Your task to perform on an android device: Show me productivity apps on the Play Store Image 0: 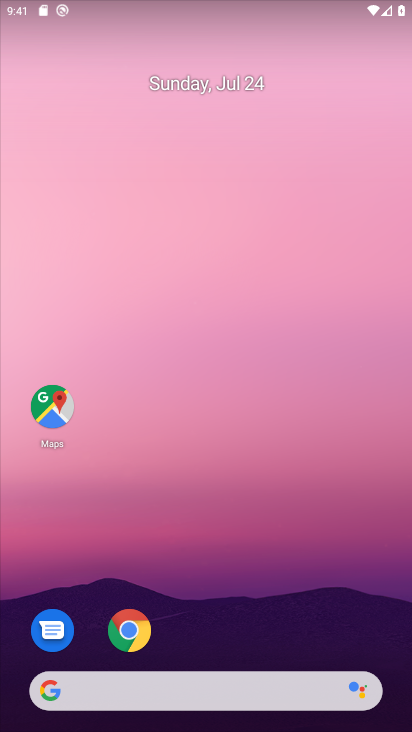
Step 0: drag from (188, 545) to (365, 36)
Your task to perform on an android device: Show me productivity apps on the Play Store Image 1: 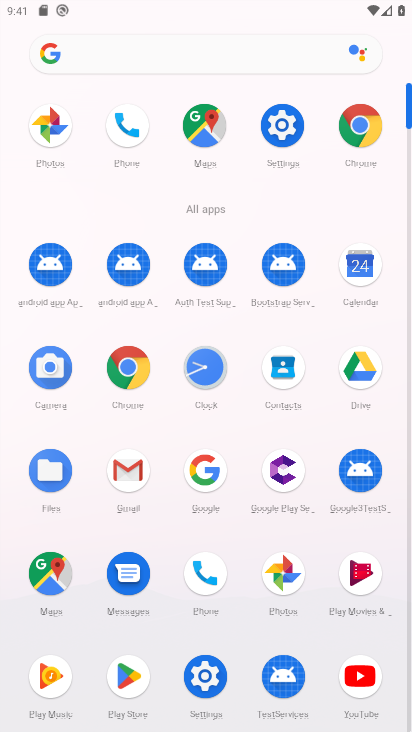
Step 1: click (137, 677)
Your task to perform on an android device: Show me productivity apps on the Play Store Image 2: 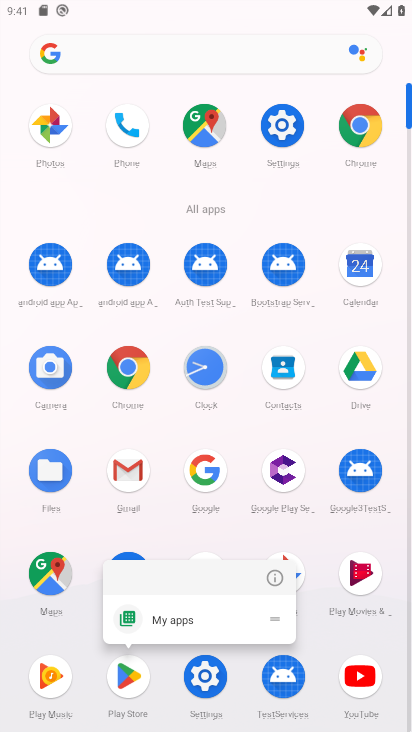
Step 2: click (137, 677)
Your task to perform on an android device: Show me productivity apps on the Play Store Image 3: 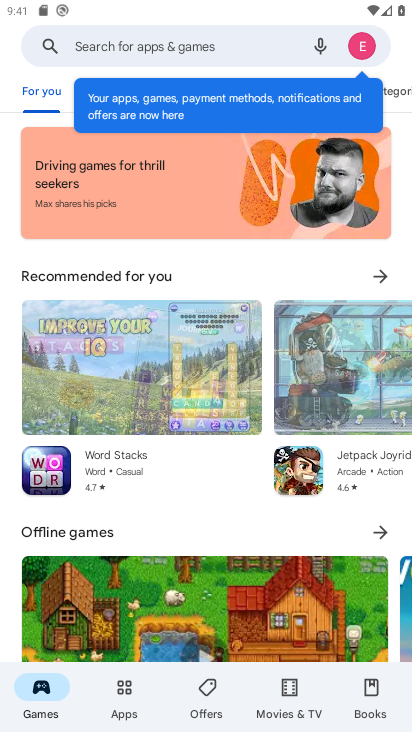
Step 3: click (111, 688)
Your task to perform on an android device: Show me productivity apps on the Play Store Image 4: 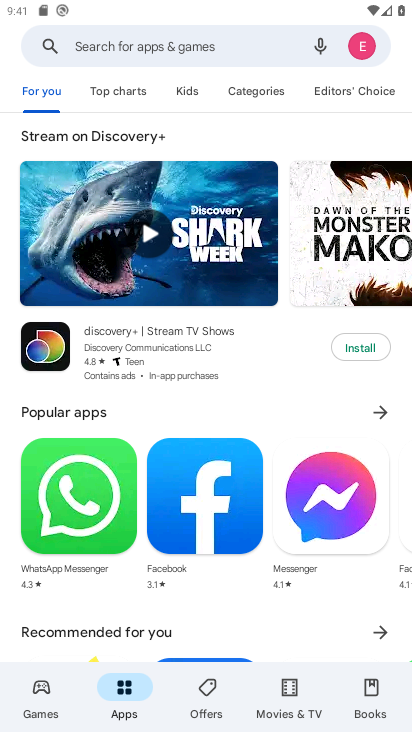
Step 4: task complete